Your task to perform on an android device: open chrome privacy settings Image 0: 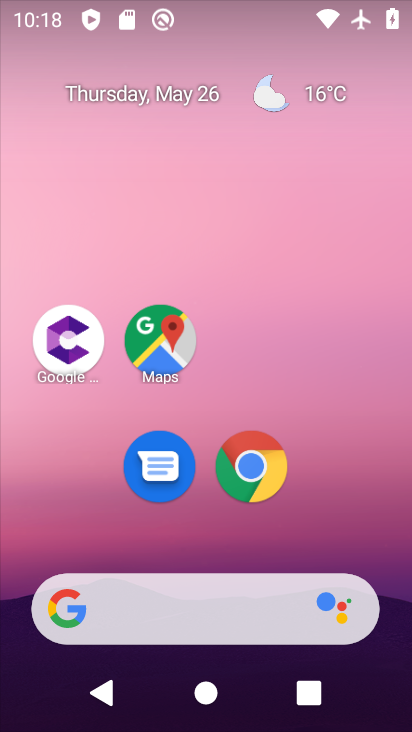
Step 0: click (249, 464)
Your task to perform on an android device: open chrome privacy settings Image 1: 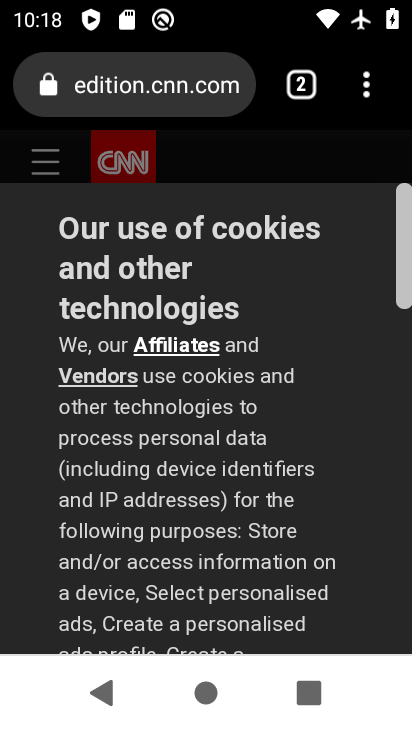
Step 1: click (368, 89)
Your task to perform on an android device: open chrome privacy settings Image 2: 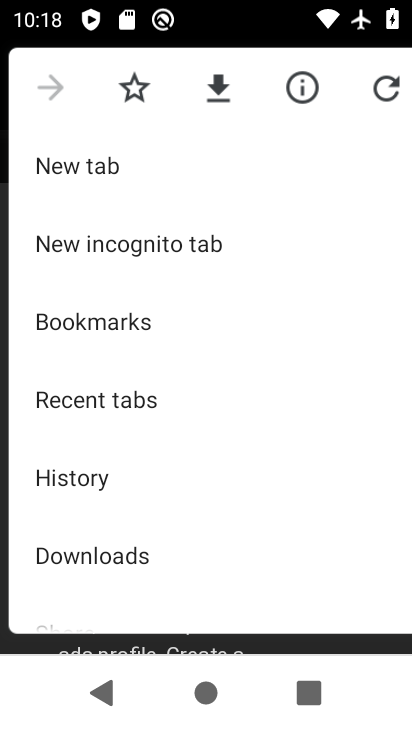
Step 2: drag from (208, 523) to (155, 212)
Your task to perform on an android device: open chrome privacy settings Image 3: 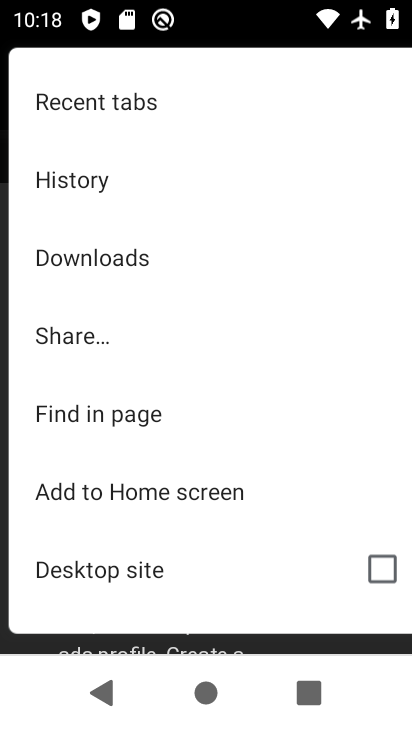
Step 3: drag from (274, 490) to (233, 167)
Your task to perform on an android device: open chrome privacy settings Image 4: 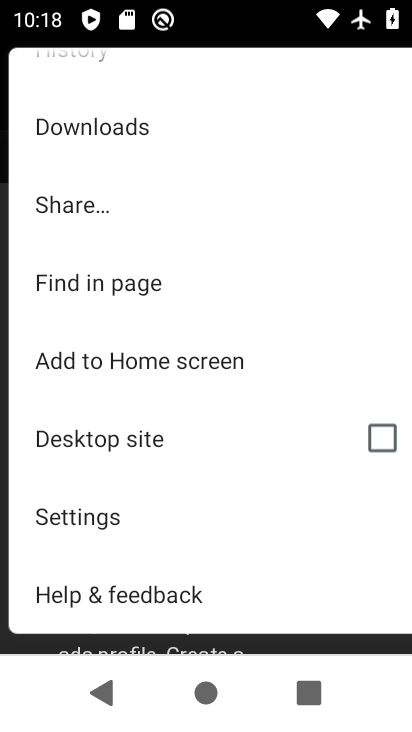
Step 4: click (80, 516)
Your task to perform on an android device: open chrome privacy settings Image 5: 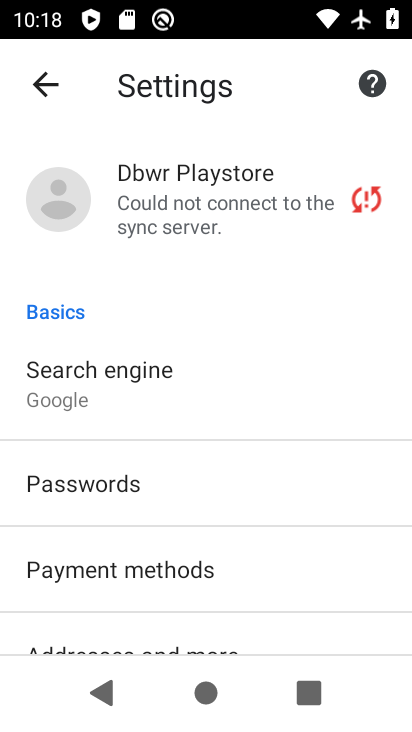
Step 5: drag from (245, 553) to (217, 228)
Your task to perform on an android device: open chrome privacy settings Image 6: 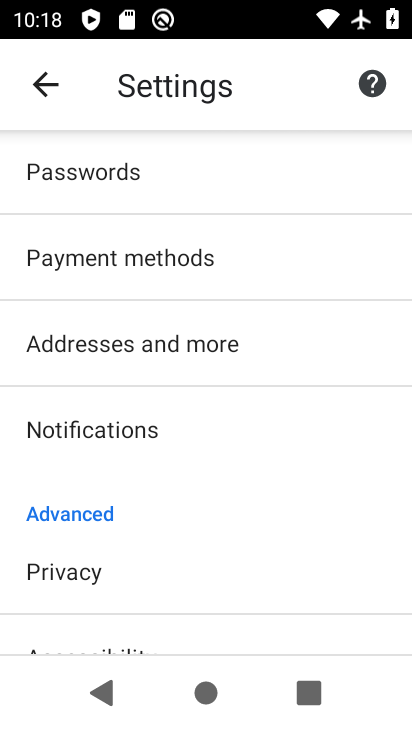
Step 6: click (78, 568)
Your task to perform on an android device: open chrome privacy settings Image 7: 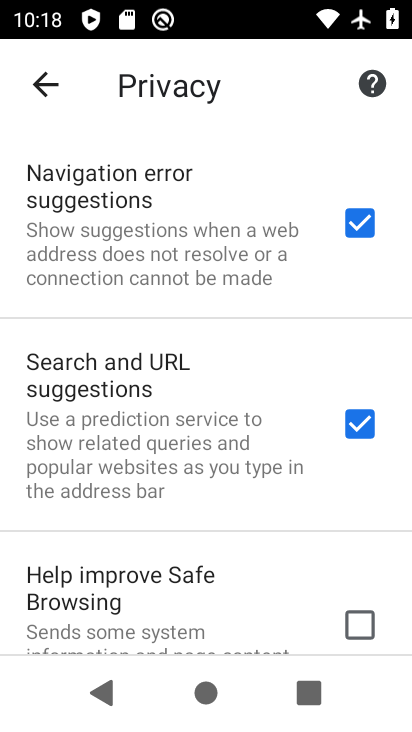
Step 7: task complete